Your task to perform on an android device: Open the web browser Image 0: 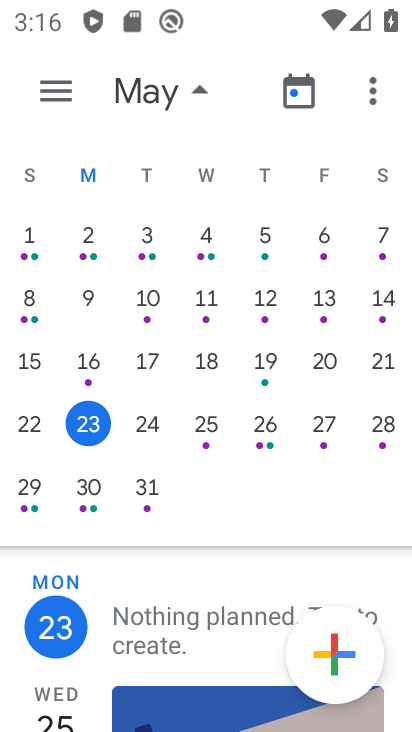
Step 0: press home button
Your task to perform on an android device: Open the web browser Image 1: 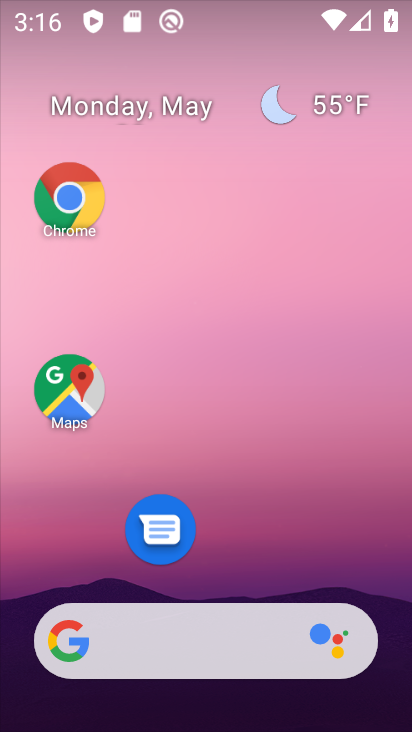
Step 1: drag from (317, 503) to (252, 178)
Your task to perform on an android device: Open the web browser Image 2: 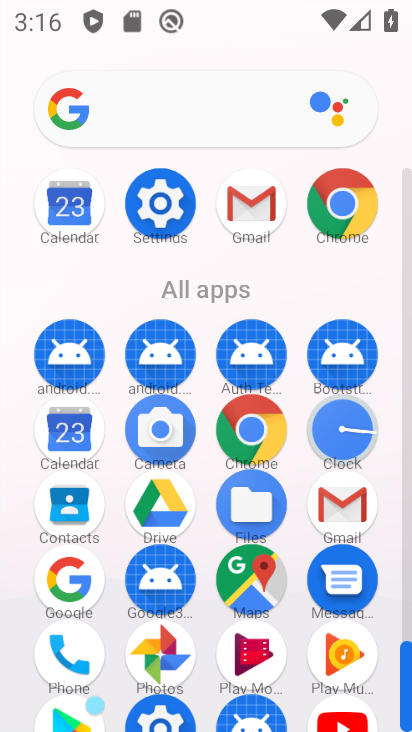
Step 2: click (359, 210)
Your task to perform on an android device: Open the web browser Image 3: 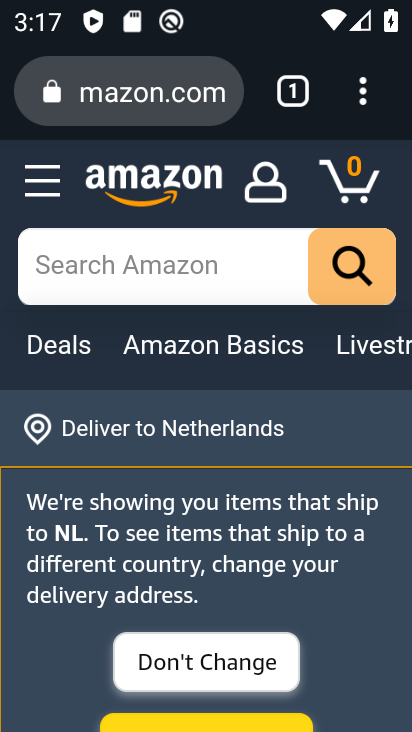
Step 3: task complete